Your task to perform on an android device: toggle translation in the chrome app Image 0: 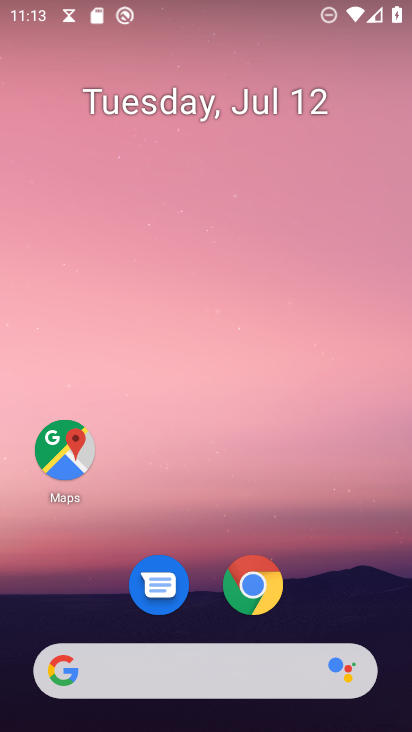
Step 0: click (268, 598)
Your task to perform on an android device: toggle translation in the chrome app Image 1: 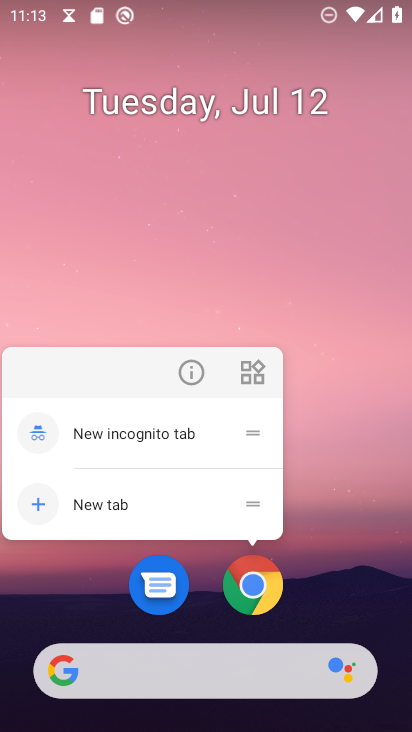
Step 1: click (254, 593)
Your task to perform on an android device: toggle translation in the chrome app Image 2: 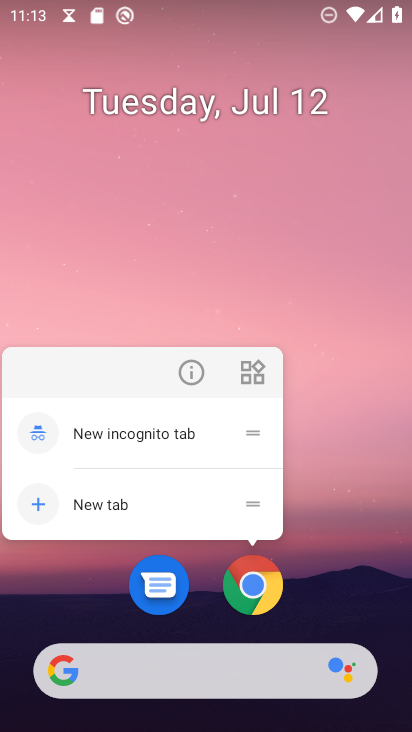
Step 2: click (254, 592)
Your task to perform on an android device: toggle translation in the chrome app Image 3: 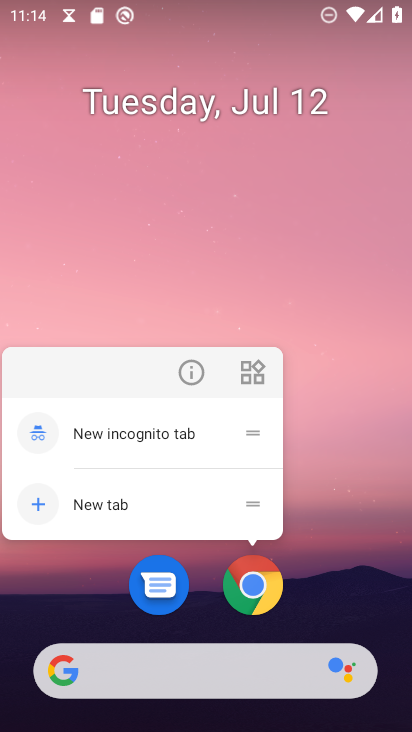
Step 3: click (264, 590)
Your task to perform on an android device: toggle translation in the chrome app Image 4: 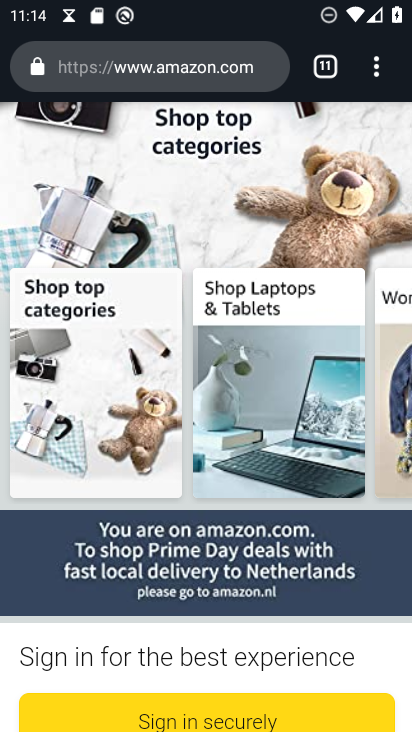
Step 4: drag from (376, 76) to (202, 583)
Your task to perform on an android device: toggle translation in the chrome app Image 5: 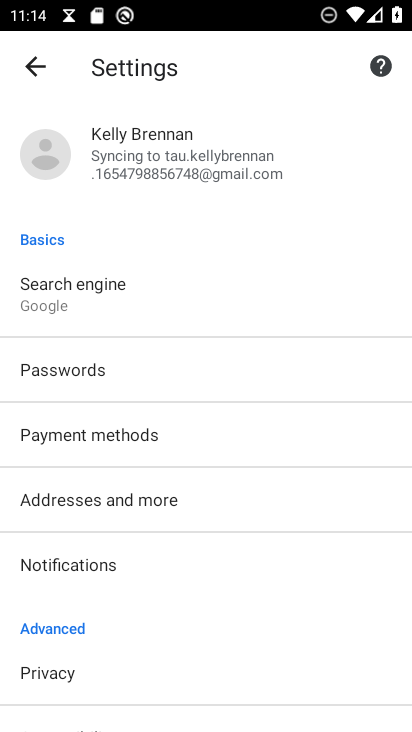
Step 5: drag from (146, 638) to (245, 384)
Your task to perform on an android device: toggle translation in the chrome app Image 6: 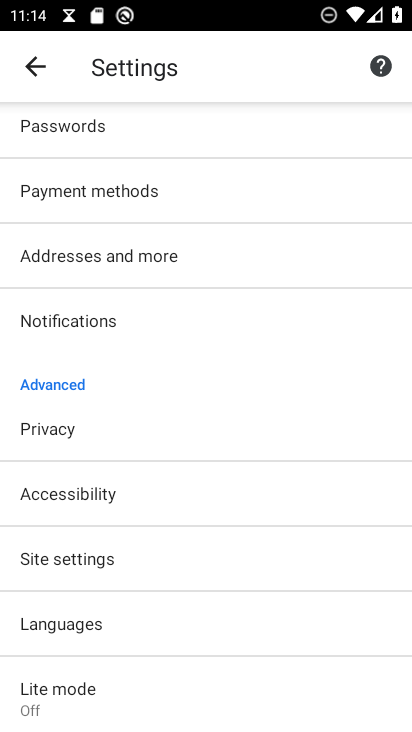
Step 6: click (100, 620)
Your task to perform on an android device: toggle translation in the chrome app Image 7: 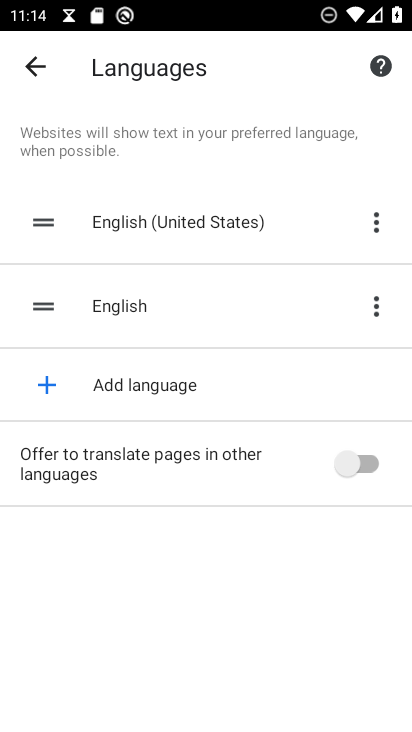
Step 7: click (361, 465)
Your task to perform on an android device: toggle translation in the chrome app Image 8: 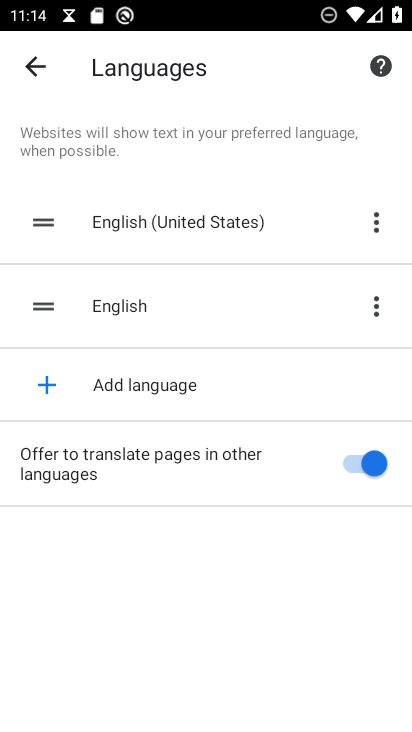
Step 8: task complete